Your task to perform on an android device: Go to CNN.com Image 0: 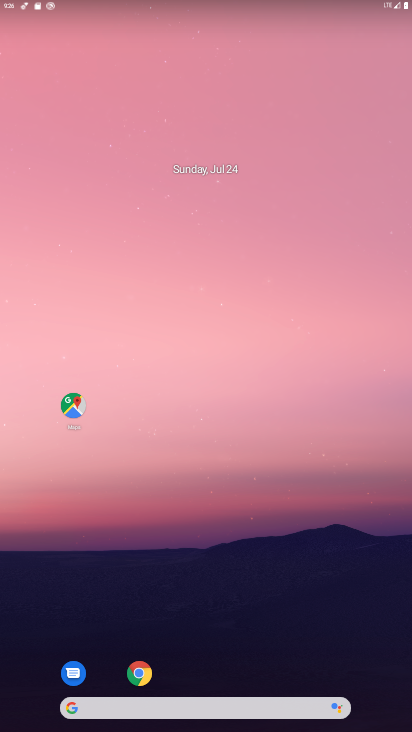
Step 0: click (141, 679)
Your task to perform on an android device: Go to CNN.com Image 1: 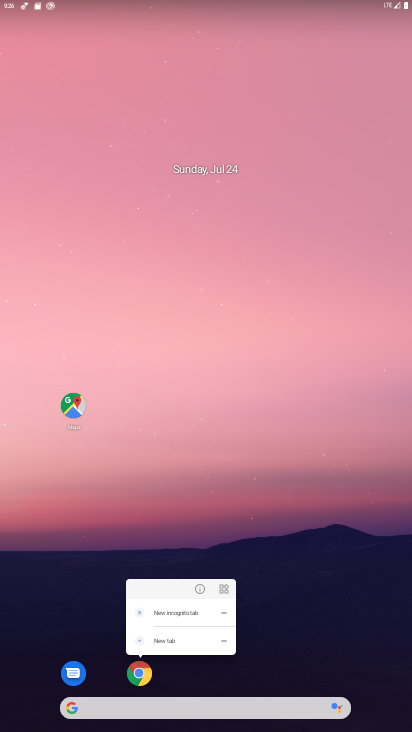
Step 1: click (137, 669)
Your task to perform on an android device: Go to CNN.com Image 2: 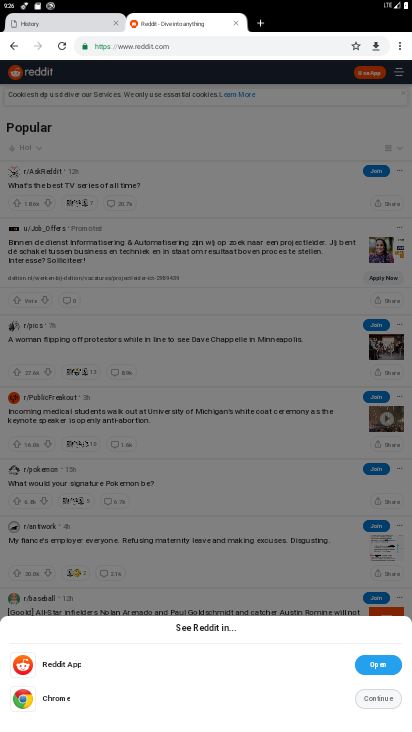
Step 2: click (66, 20)
Your task to perform on an android device: Go to CNN.com Image 3: 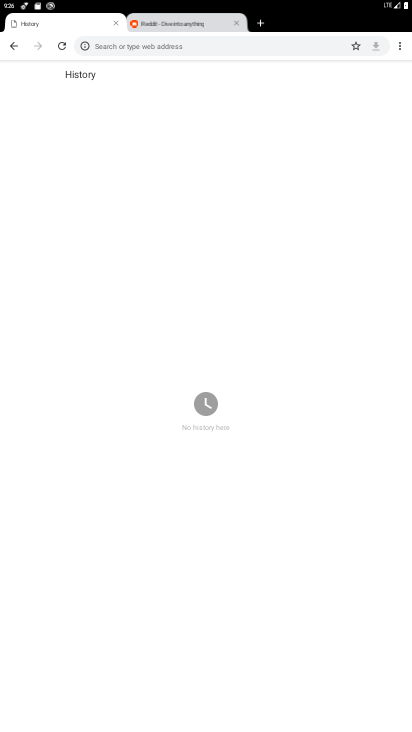
Step 3: click (167, 44)
Your task to perform on an android device: Go to CNN.com Image 4: 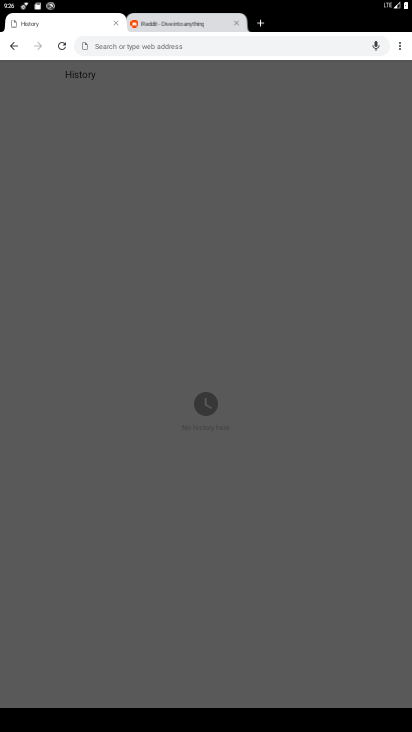
Step 4: type "CNN.com"
Your task to perform on an android device: Go to CNN.com Image 5: 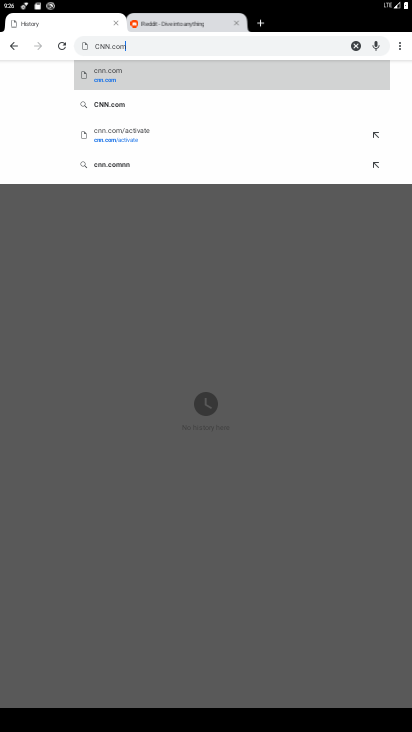
Step 5: click (128, 75)
Your task to perform on an android device: Go to CNN.com Image 6: 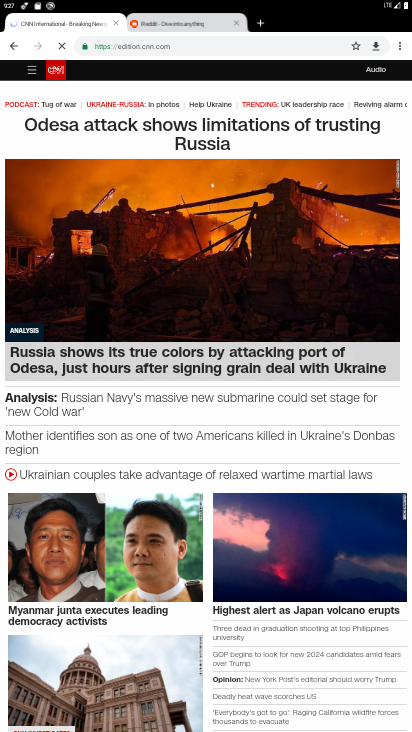
Step 6: task complete